Your task to perform on an android device: add a label to a message in the gmail app Image 0: 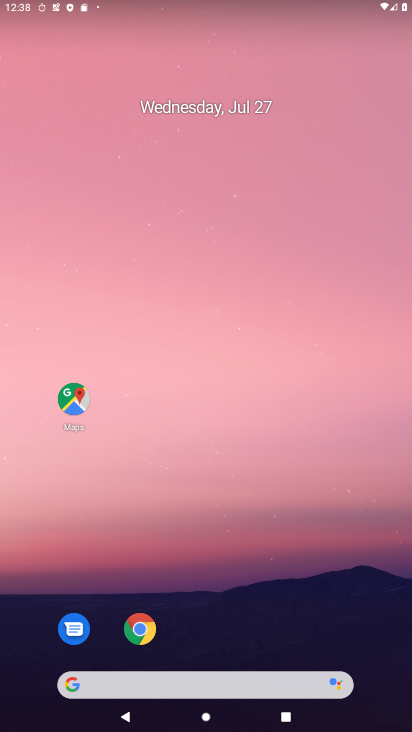
Step 0: drag from (361, 625) to (198, 37)
Your task to perform on an android device: add a label to a message in the gmail app Image 1: 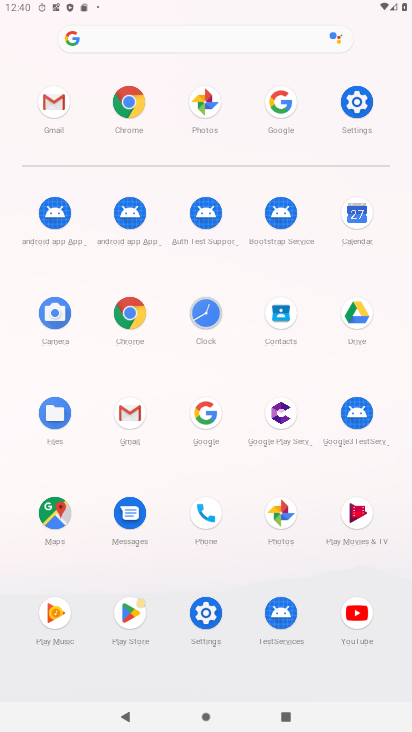
Step 1: click (128, 422)
Your task to perform on an android device: add a label to a message in the gmail app Image 2: 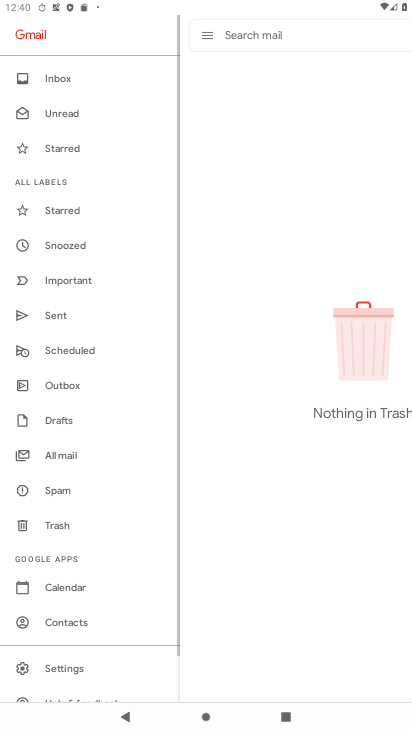
Step 2: task complete